Your task to perform on an android device: allow cookies in the chrome app Image 0: 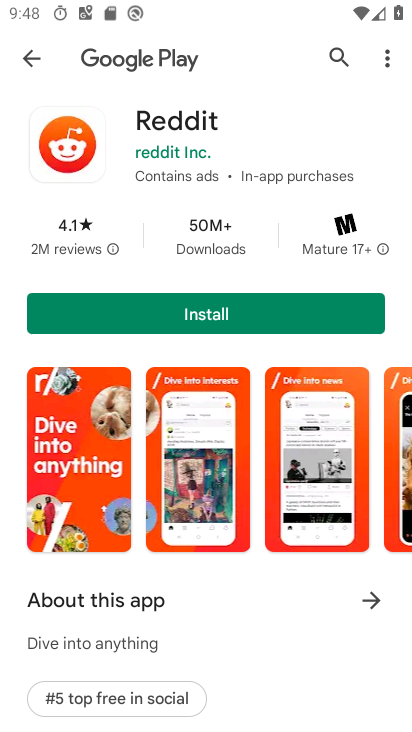
Step 0: press back button
Your task to perform on an android device: allow cookies in the chrome app Image 1: 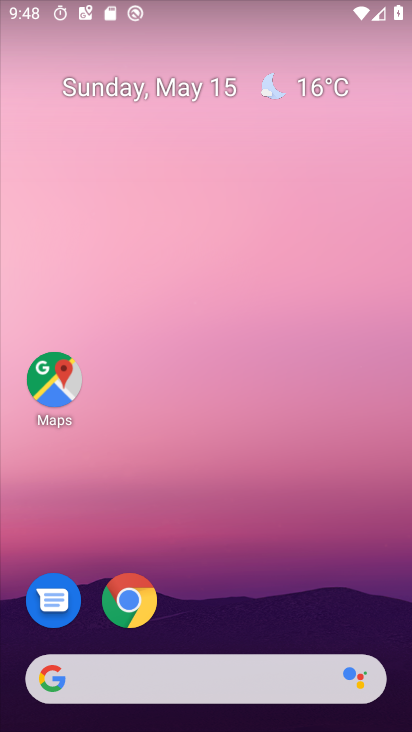
Step 1: click (123, 613)
Your task to perform on an android device: allow cookies in the chrome app Image 2: 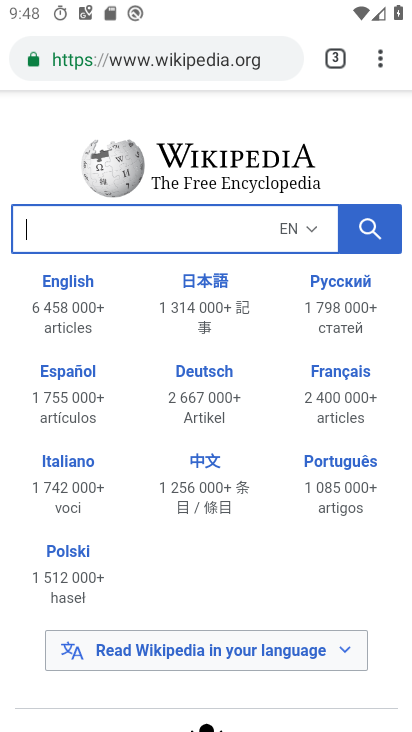
Step 2: press home button
Your task to perform on an android device: allow cookies in the chrome app Image 3: 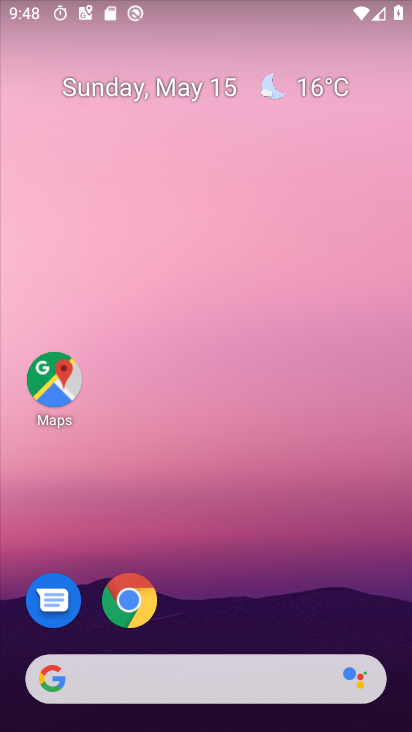
Step 3: click (116, 587)
Your task to perform on an android device: allow cookies in the chrome app Image 4: 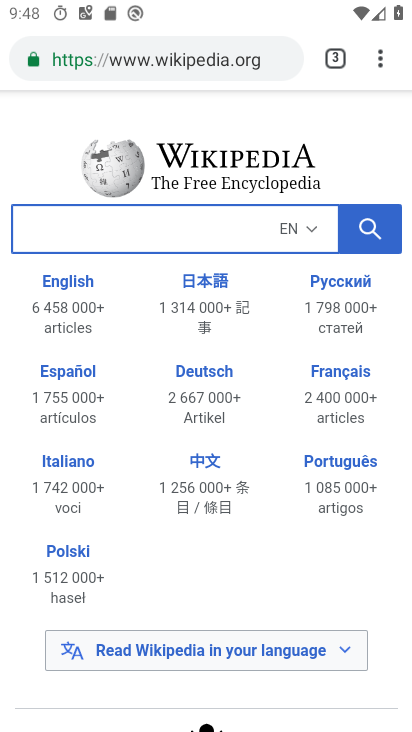
Step 4: click (380, 68)
Your task to perform on an android device: allow cookies in the chrome app Image 5: 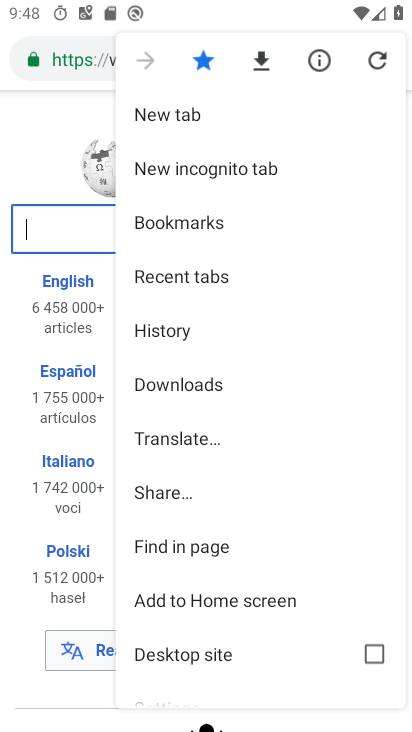
Step 5: drag from (209, 639) to (188, 57)
Your task to perform on an android device: allow cookies in the chrome app Image 6: 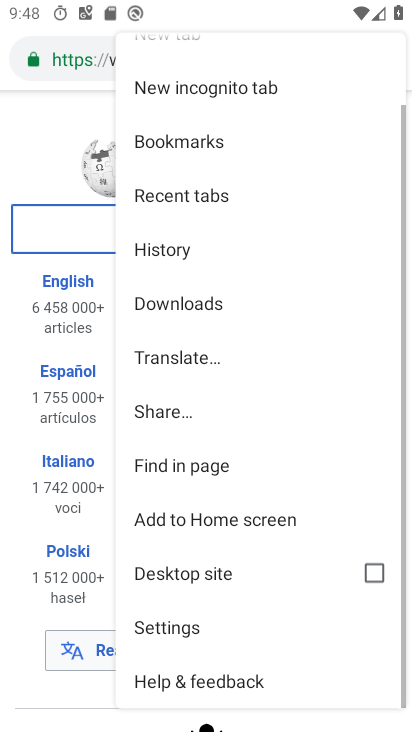
Step 6: click (173, 627)
Your task to perform on an android device: allow cookies in the chrome app Image 7: 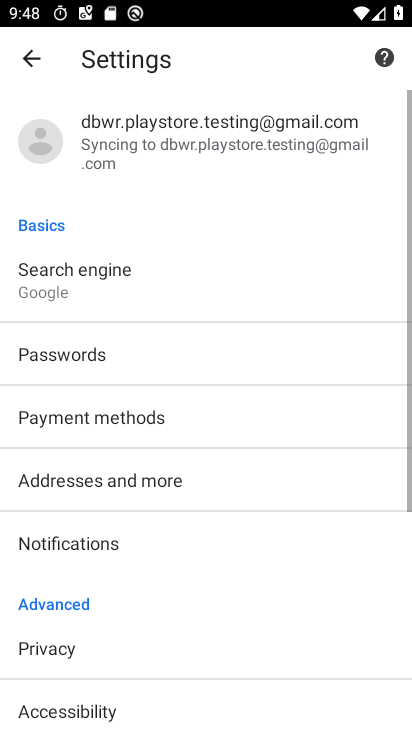
Step 7: drag from (255, 529) to (224, 144)
Your task to perform on an android device: allow cookies in the chrome app Image 8: 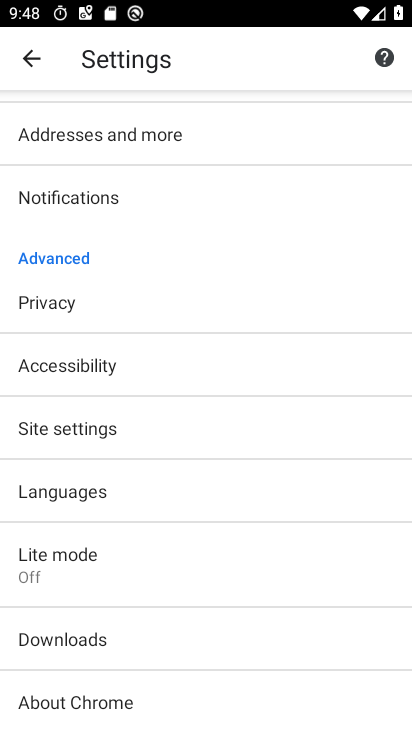
Step 8: click (102, 431)
Your task to perform on an android device: allow cookies in the chrome app Image 9: 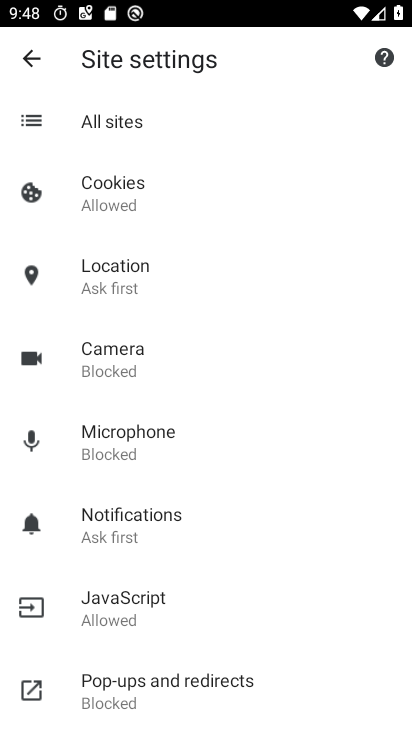
Step 9: click (92, 195)
Your task to perform on an android device: allow cookies in the chrome app Image 10: 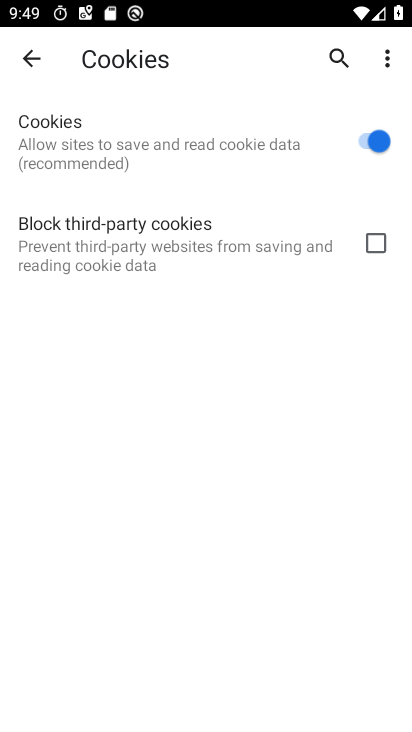
Step 10: task complete